Your task to perform on an android device: turn on location history Image 0: 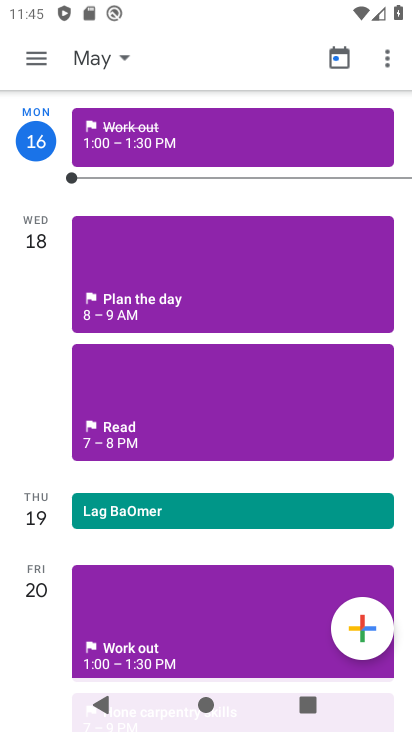
Step 0: drag from (399, 635) to (347, 267)
Your task to perform on an android device: turn on location history Image 1: 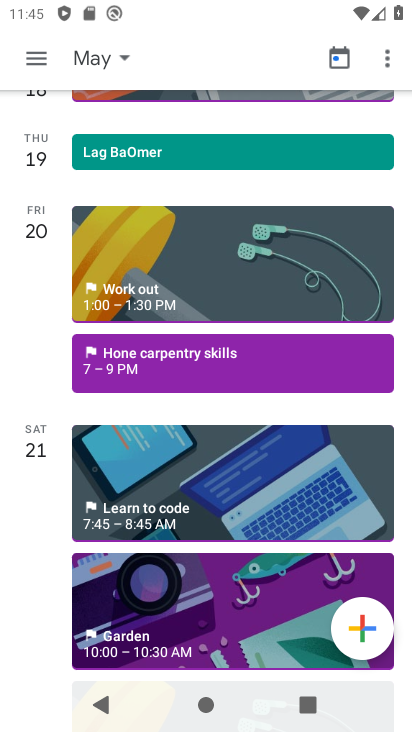
Step 1: press home button
Your task to perform on an android device: turn on location history Image 2: 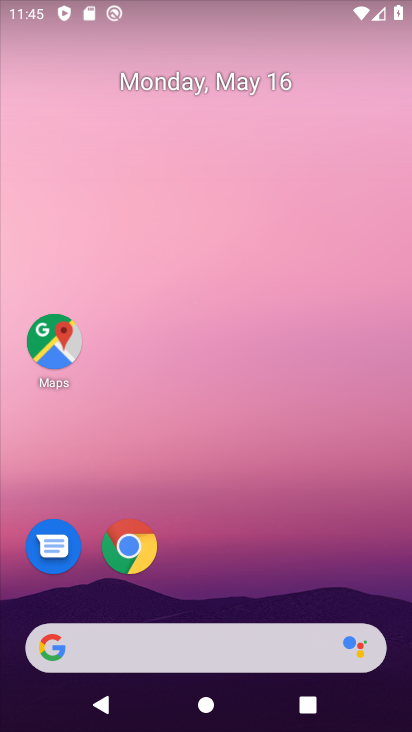
Step 2: click (55, 339)
Your task to perform on an android device: turn on location history Image 3: 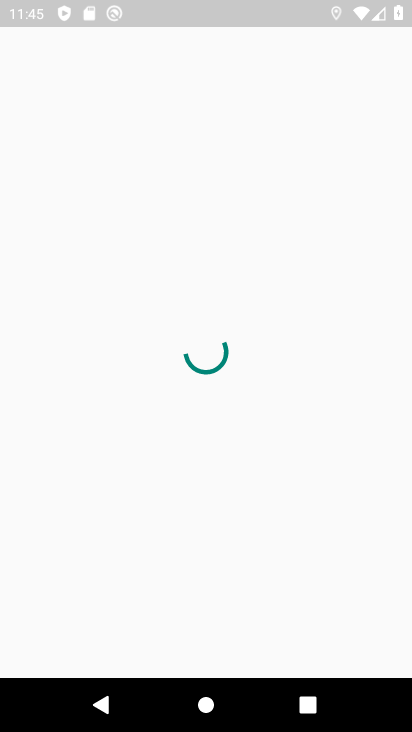
Step 3: click (44, 62)
Your task to perform on an android device: turn on location history Image 4: 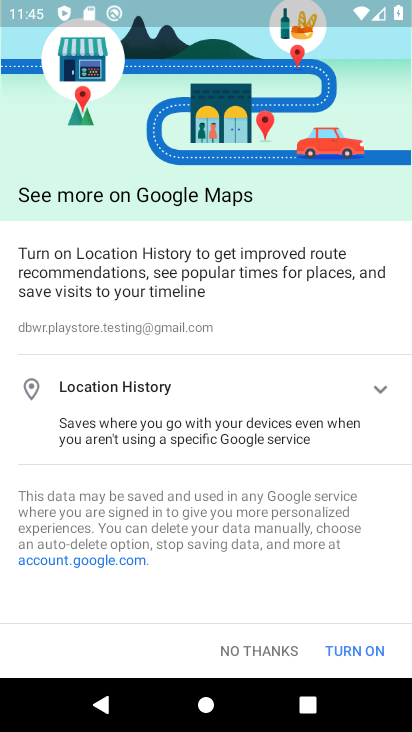
Step 4: click (254, 652)
Your task to perform on an android device: turn on location history Image 5: 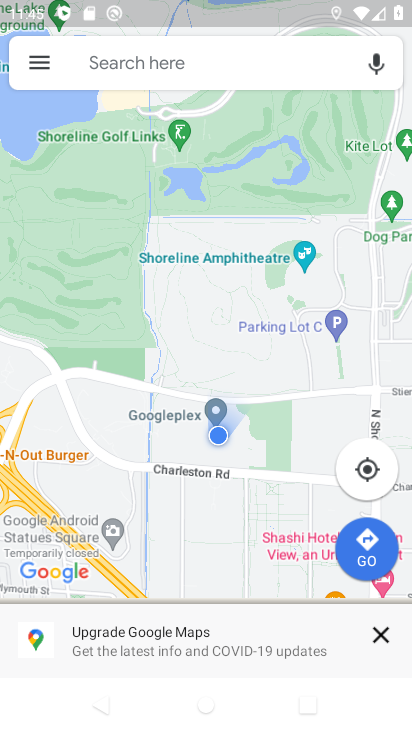
Step 5: click (39, 60)
Your task to perform on an android device: turn on location history Image 6: 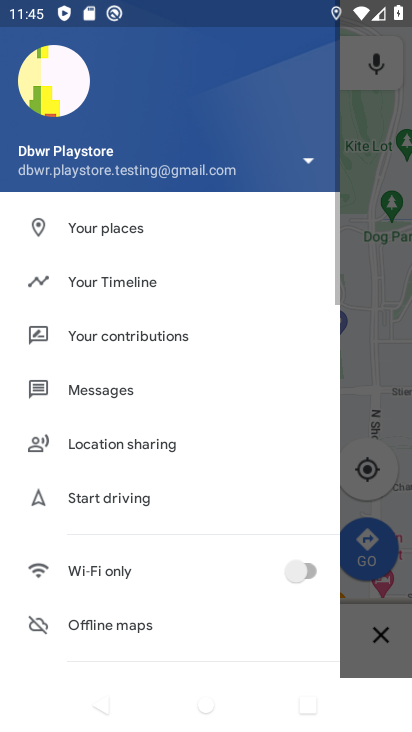
Step 6: drag from (232, 571) to (241, 175)
Your task to perform on an android device: turn on location history Image 7: 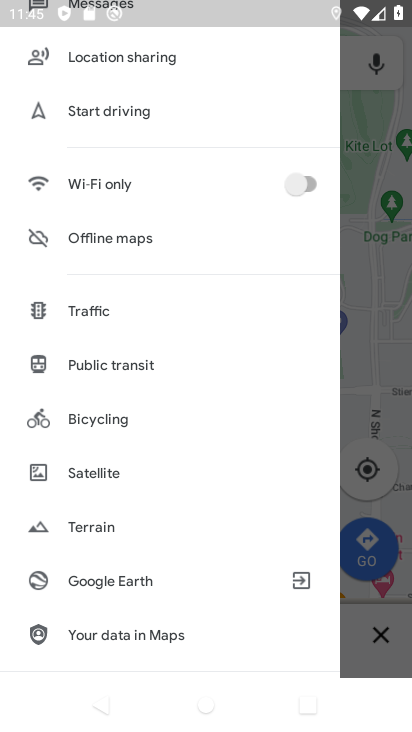
Step 7: drag from (204, 618) to (243, 88)
Your task to perform on an android device: turn on location history Image 8: 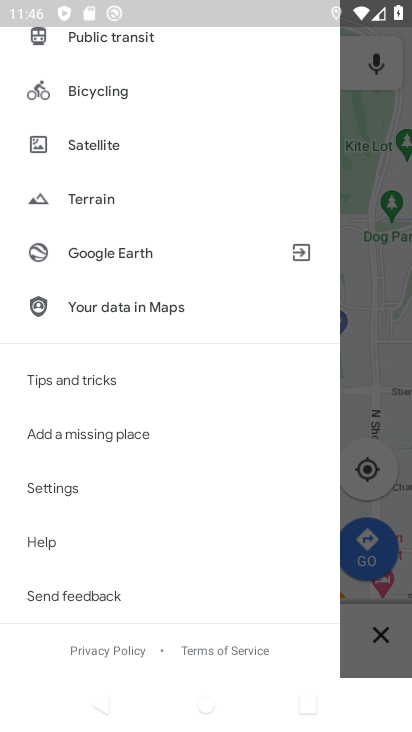
Step 8: click (63, 499)
Your task to perform on an android device: turn on location history Image 9: 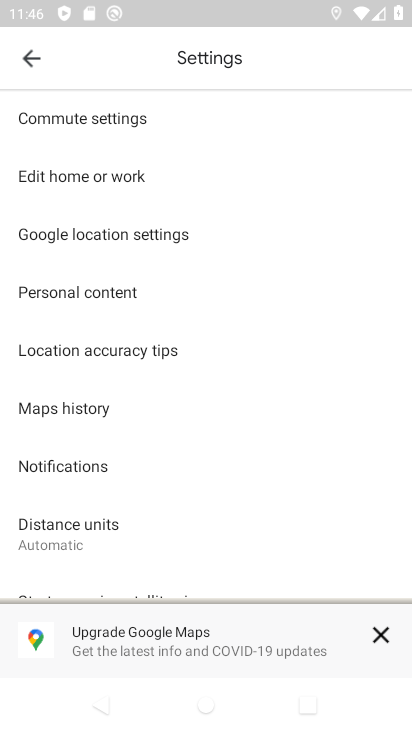
Step 9: click (89, 294)
Your task to perform on an android device: turn on location history Image 10: 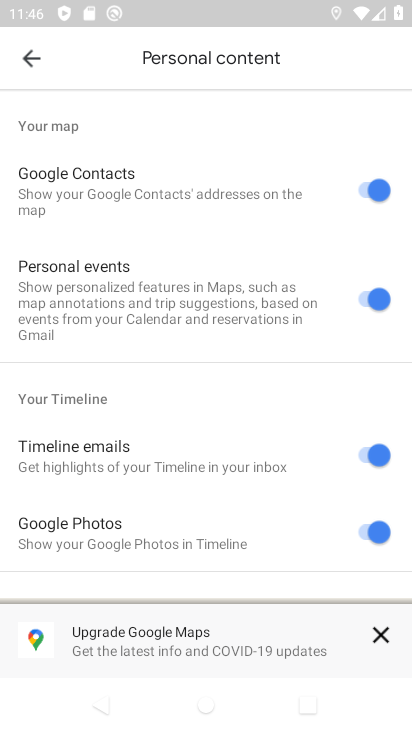
Step 10: drag from (270, 573) to (304, 125)
Your task to perform on an android device: turn on location history Image 11: 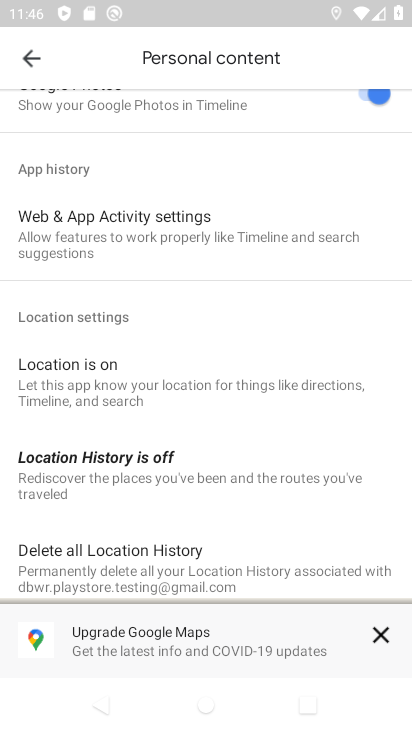
Step 11: click (59, 471)
Your task to perform on an android device: turn on location history Image 12: 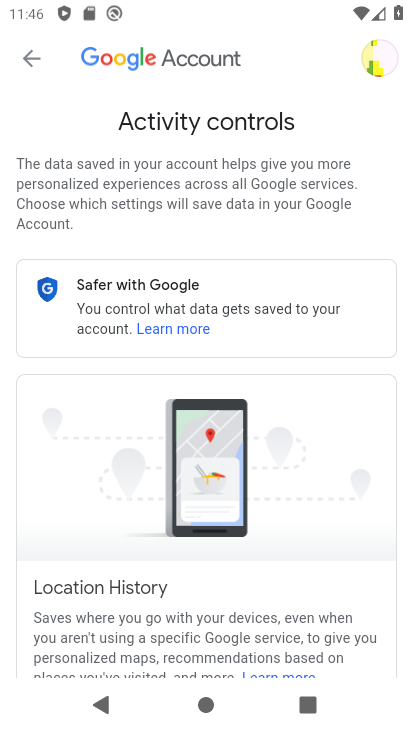
Step 12: task complete